Your task to perform on an android device: Open eBay Image 0: 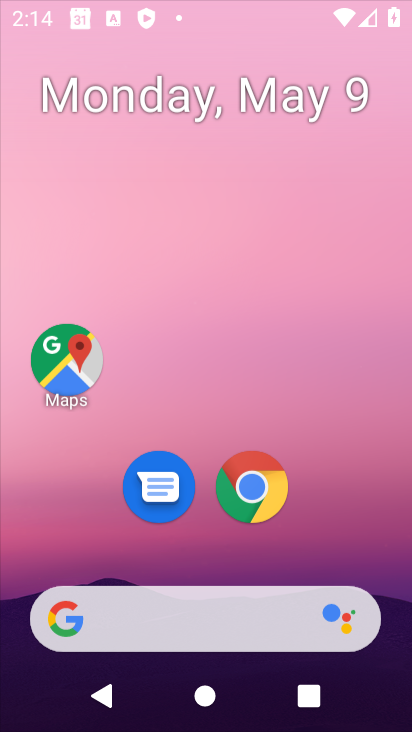
Step 0: click (321, 38)
Your task to perform on an android device: Open eBay Image 1: 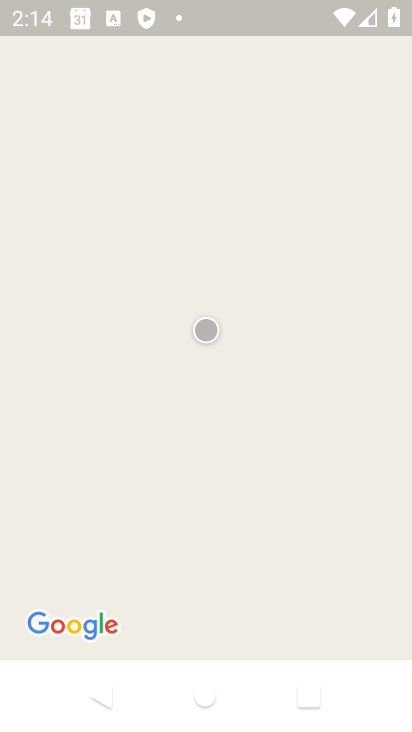
Step 1: press home button
Your task to perform on an android device: Open eBay Image 2: 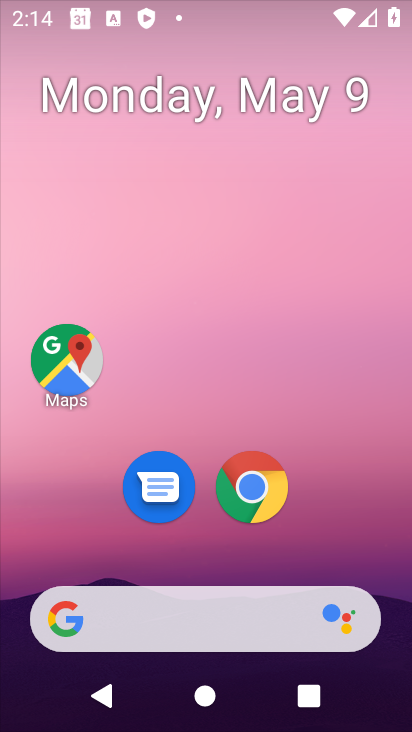
Step 2: click (158, 629)
Your task to perform on an android device: Open eBay Image 3: 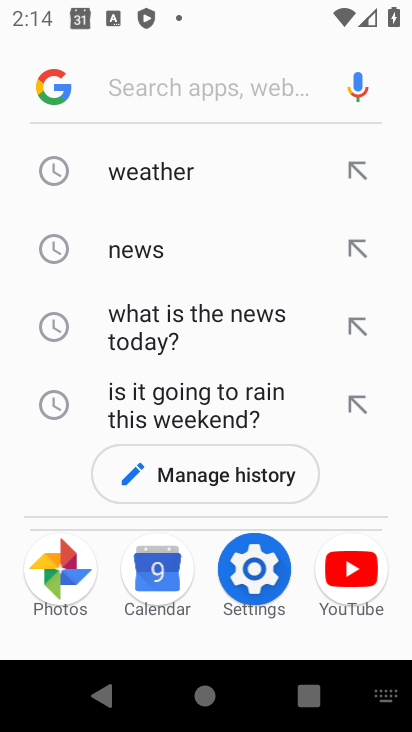
Step 3: type "ebay"
Your task to perform on an android device: Open eBay Image 4: 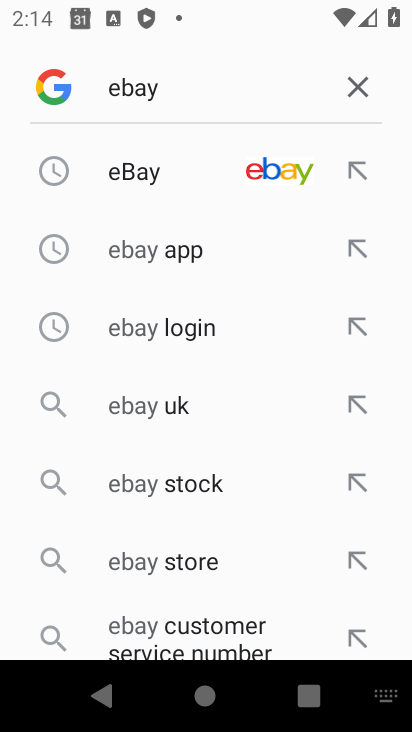
Step 4: click (279, 161)
Your task to perform on an android device: Open eBay Image 5: 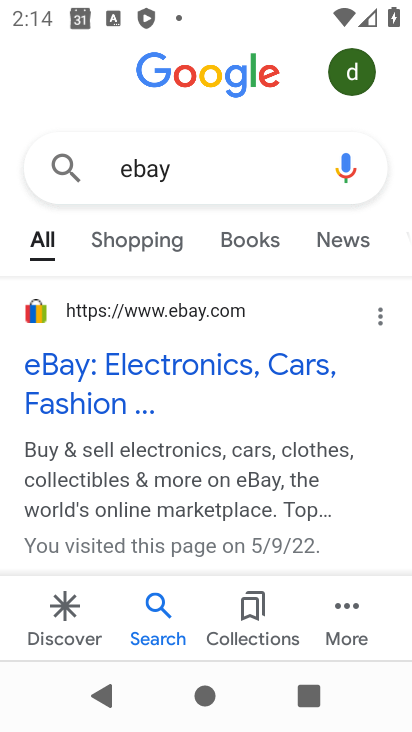
Step 5: click (229, 372)
Your task to perform on an android device: Open eBay Image 6: 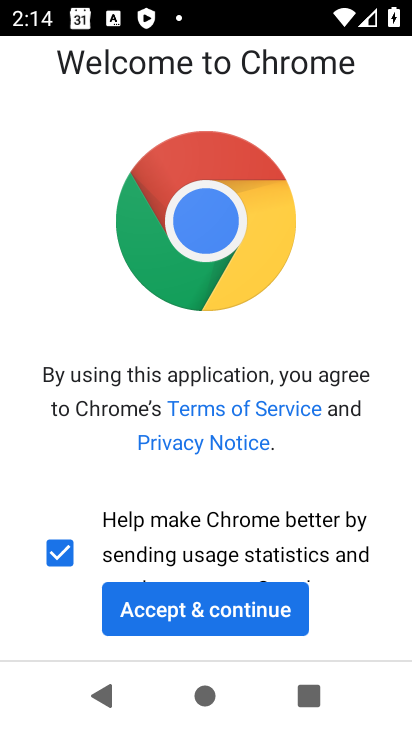
Step 6: click (257, 617)
Your task to perform on an android device: Open eBay Image 7: 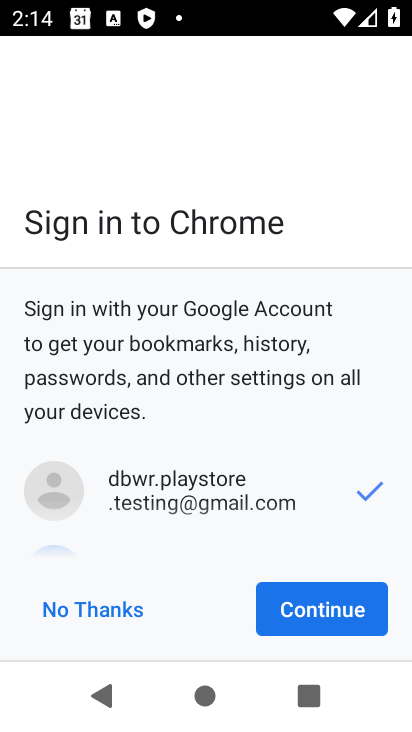
Step 7: click (309, 617)
Your task to perform on an android device: Open eBay Image 8: 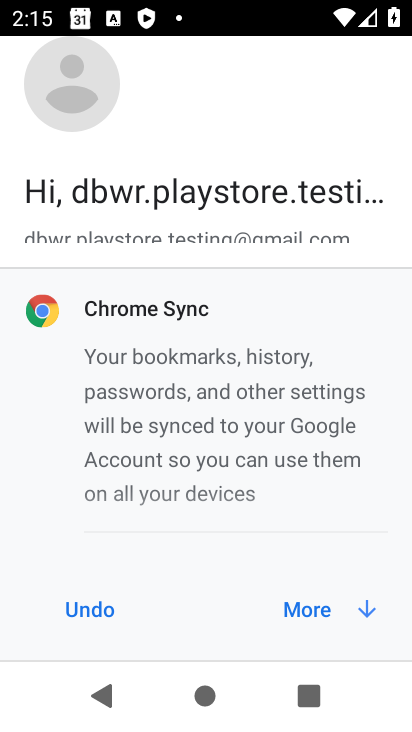
Step 8: click (316, 600)
Your task to perform on an android device: Open eBay Image 9: 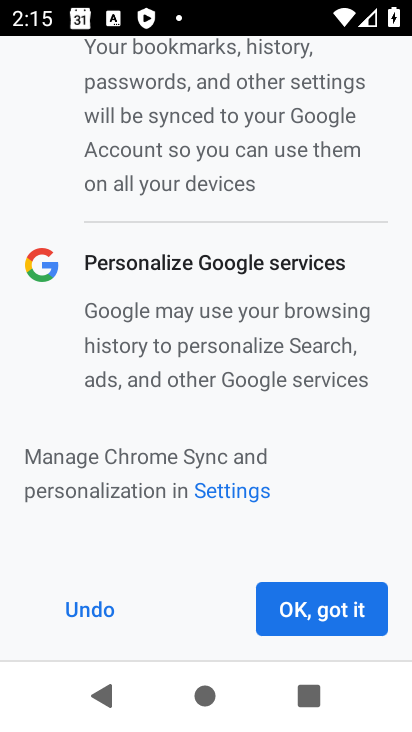
Step 9: click (325, 599)
Your task to perform on an android device: Open eBay Image 10: 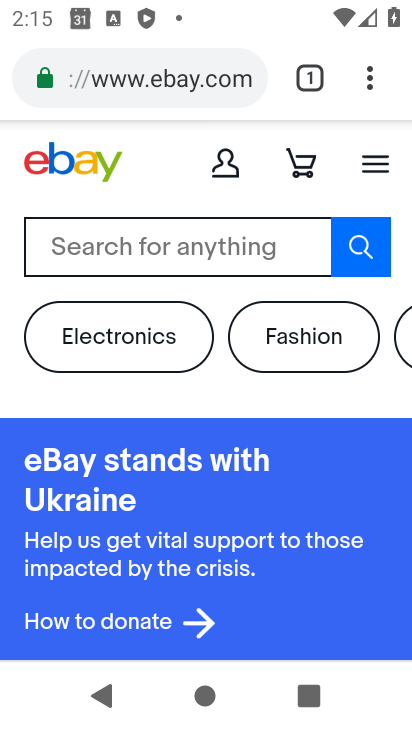
Step 10: task complete